Your task to perform on an android device: Check the news Image 0: 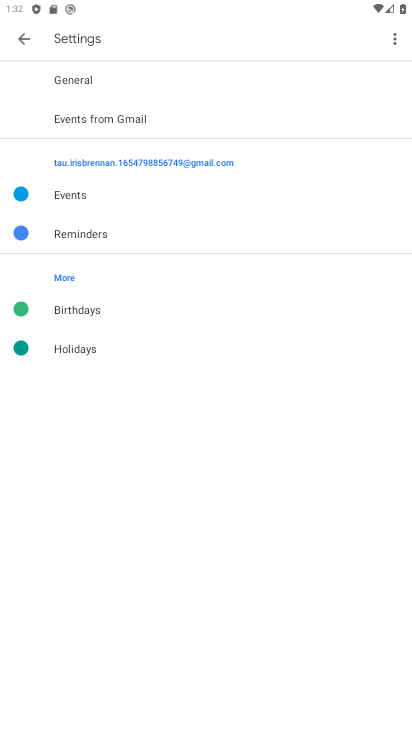
Step 0: press back button
Your task to perform on an android device: Check the news Image 1: 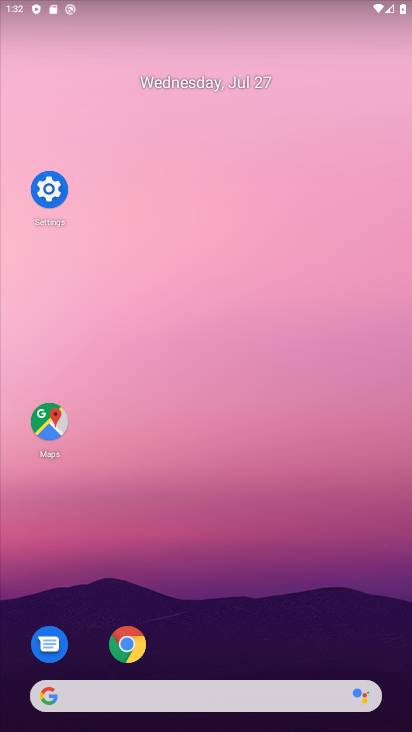
Step 1: drag from (228, 409) to (216, 253)
Your task to perform on an android device: Check the news Image 2: 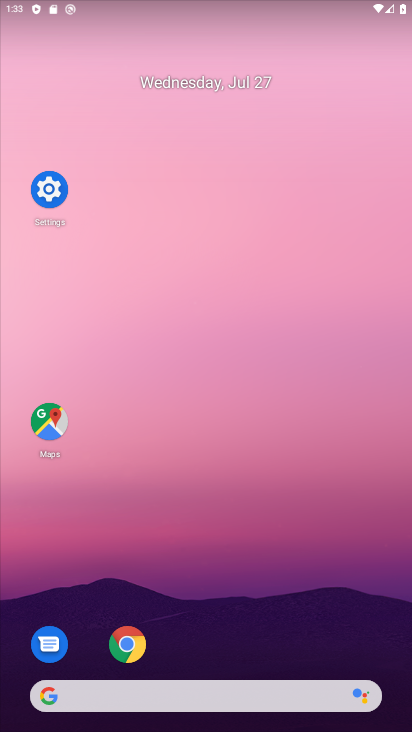
Step 2: drag from (265, 624) to (252, 168)
Your task to perform on an android device: Check the news Image 3: 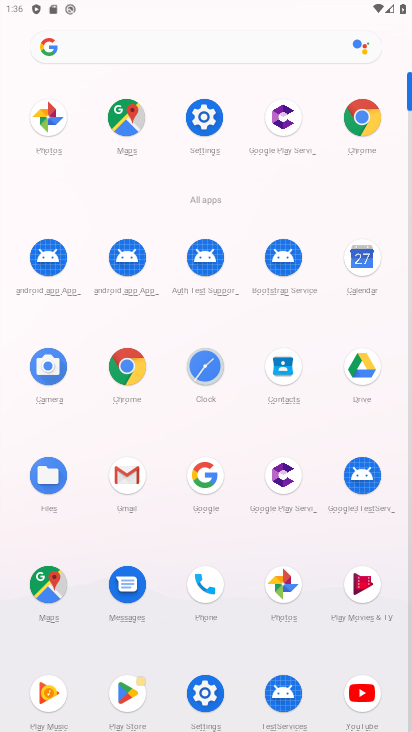
Step 3: click (198, 485)
Your task to perform on an android device: Check the news Image 4: 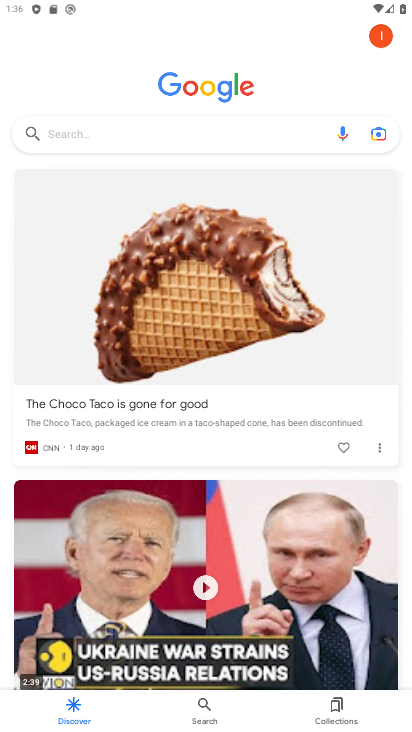
Step 4: click (135, 123)
Your task to perform on an android device: Check the news Image 5: 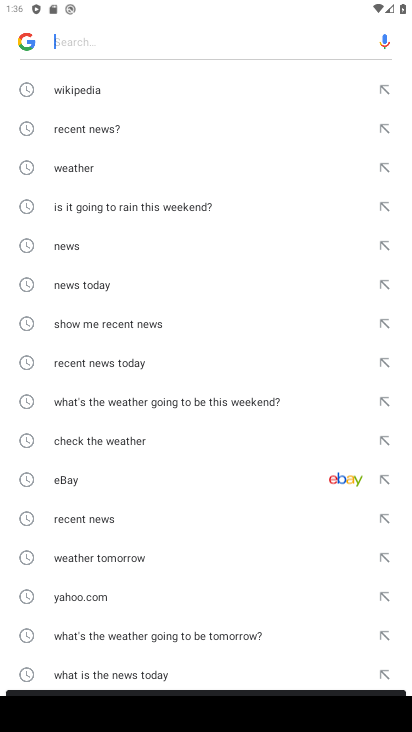
Step 5: click (75, 242)
Your task to perform on an android device: Check the news Image 6: 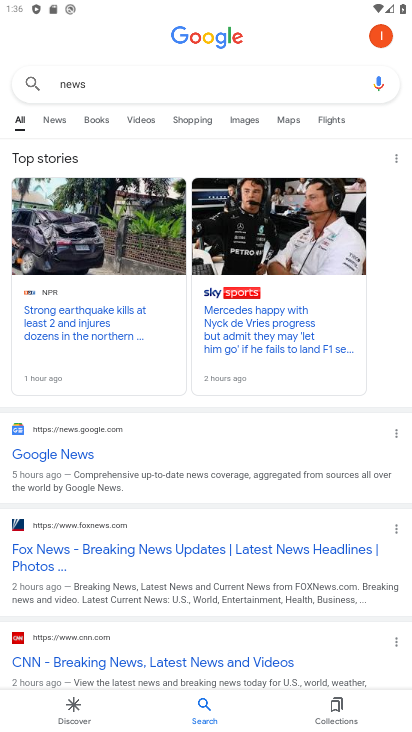
Step 6: task complete